Your task to perform on an android device: Open display settings Image 0: 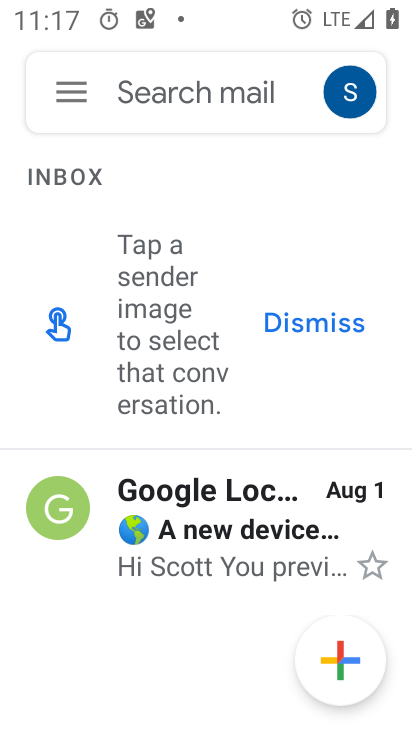
Step 0: press home button
Your task to perform on an android device: Open display settings Image 1: 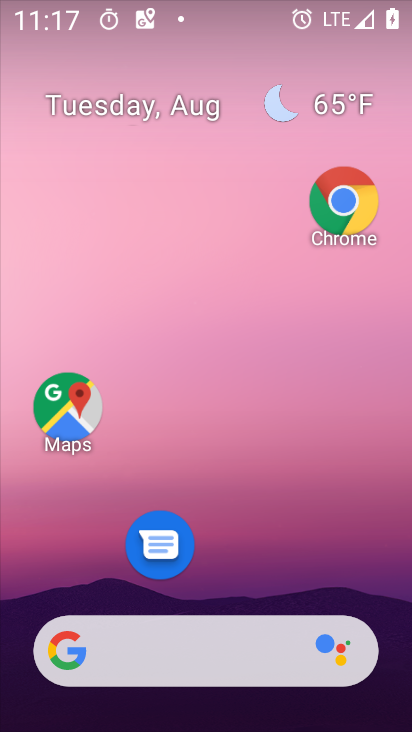
Step 1: drag from (254, 640) to (277, 58)
Your task to perform on an android device: Open display settings Image 2: 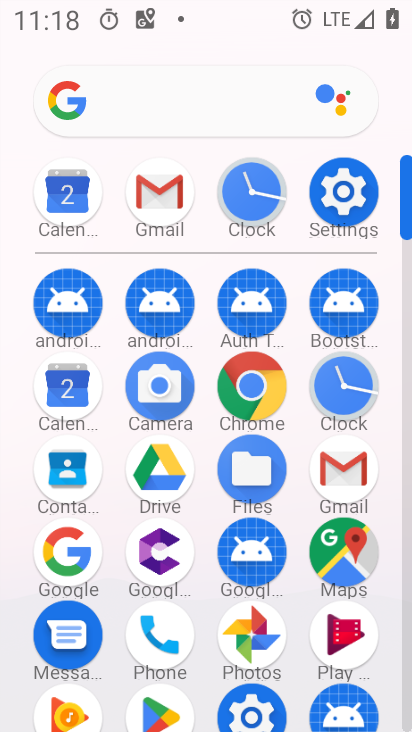
Step 2: click (351, 208)
Your task to perform on an android device: Open display settings Image 3: 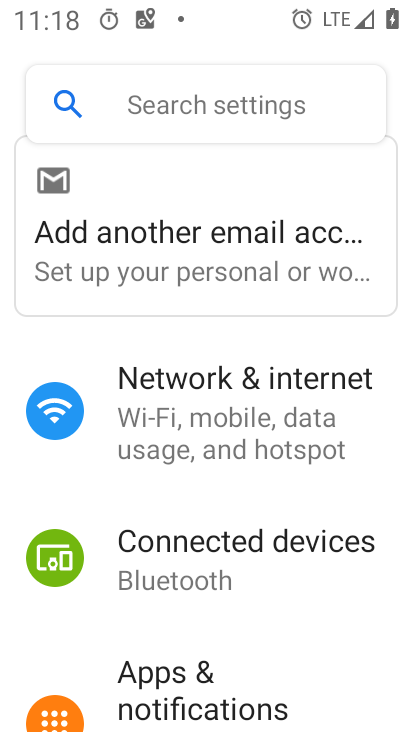
Step 3: drag from (189, 532) to (227, 15)
Your task to perform on an android device: Open display settings Image 4: 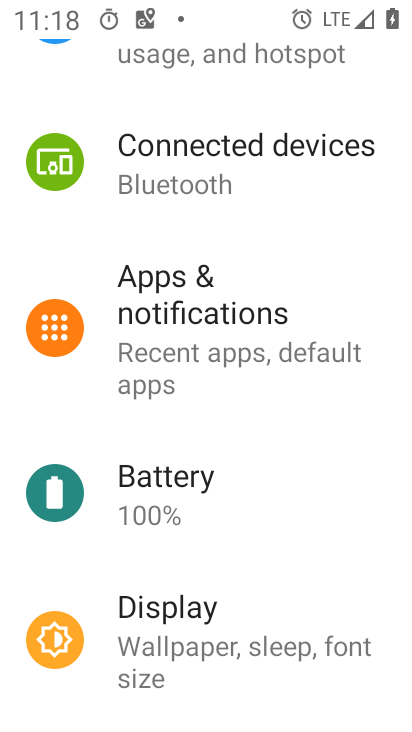
Step 4: click (173, 634)
Your task to perform on an android device: Open display settings Image 5: 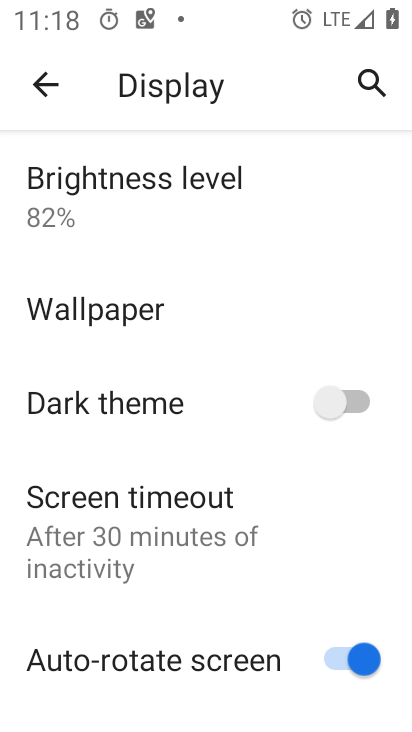
Step 5: task complete